Your task to perform on an android device: turn vacation reply on in the gmail app Image 0: 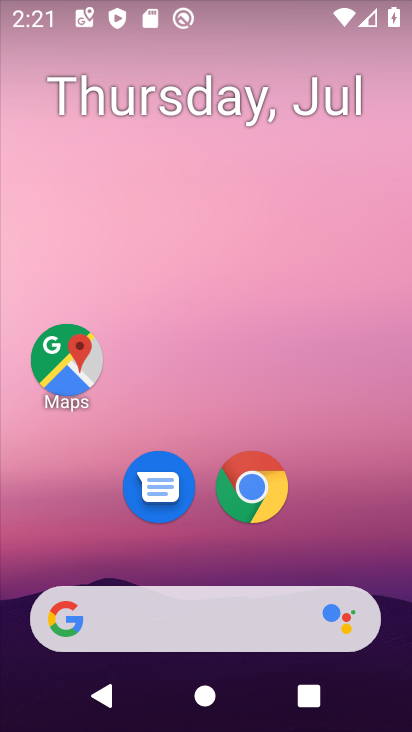
Step 0: drag from (380, 550) to (367, 177)
Your task to perform on an android device: turn vacation reply on in the gmail app Image 1: 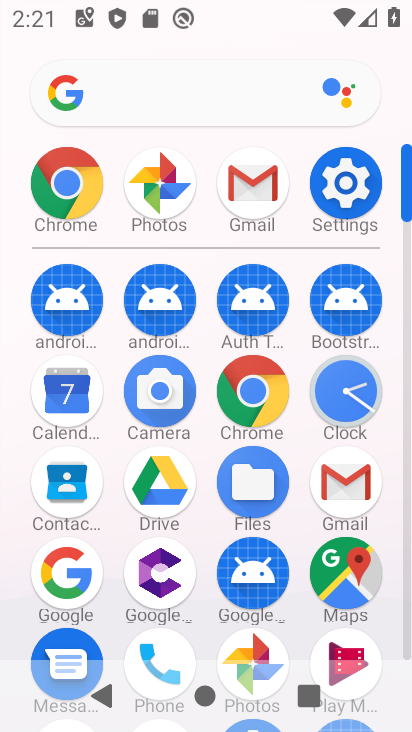
Step 1: click (353, 487)
Your task to perform on an android device: turn vacation reply on in the gmail app Image 2: 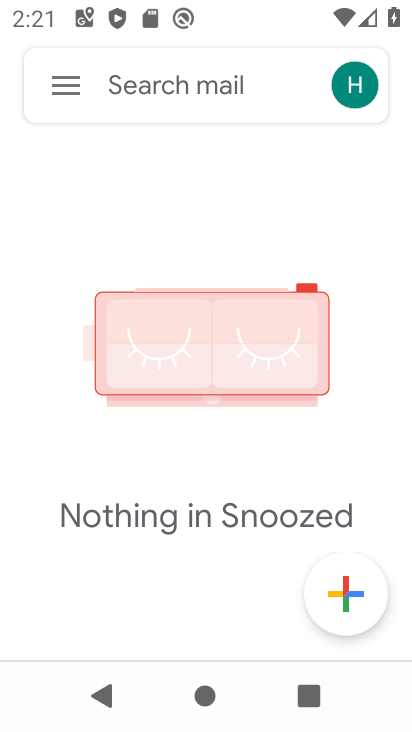
Step 2: click (71, 97)
Your task to perform on an android device: turn vacation reply on in the gmail app Image 3: 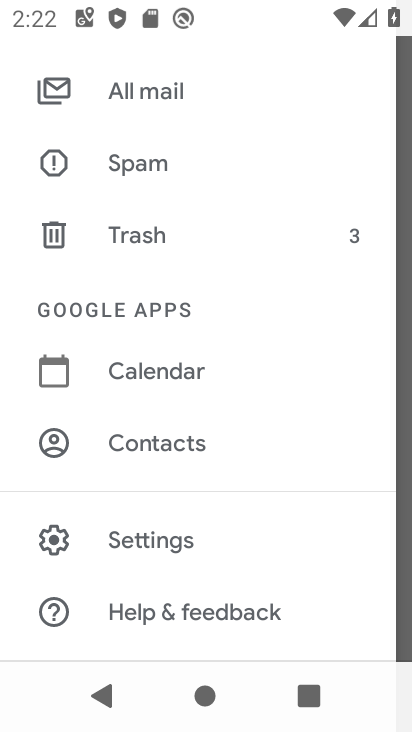
Step 3: click (180, 547)
Your task to perform on an android device: turn vacation reply on in the gmail app Image 4: 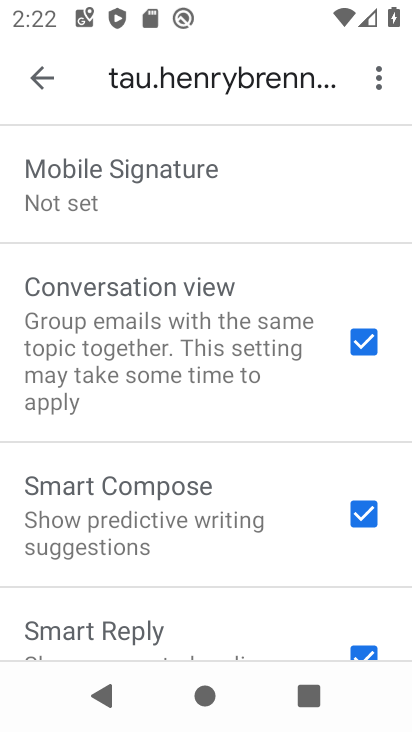
Step 4: drag from (301, 475) to (310, 404)
Your task to perform on an android device: turn vacation reply on in the gmail app Image 5: 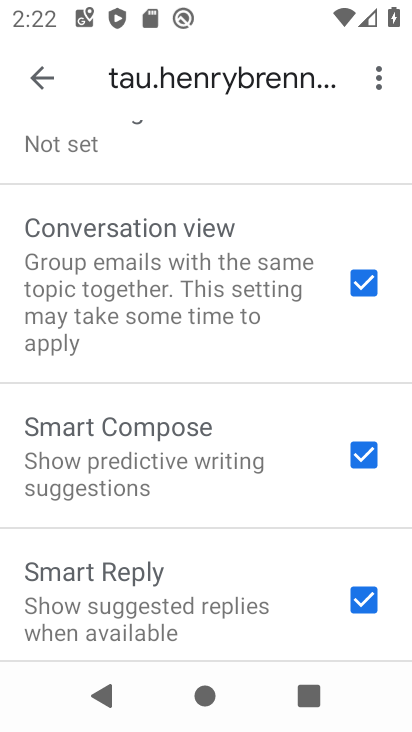
Step 5: drag from (283, 483) to (292, 394)
Your task to perform on an android device: turn vacation reply on in the gmail app Image 6: 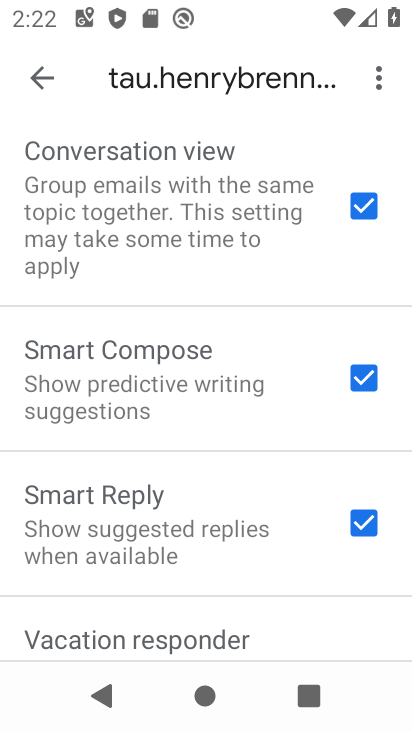
Step 6: drag from (286, 491) to (296, 380)
Your task to perform on an android device: turn vacation reply on in the gmail app Image 7: 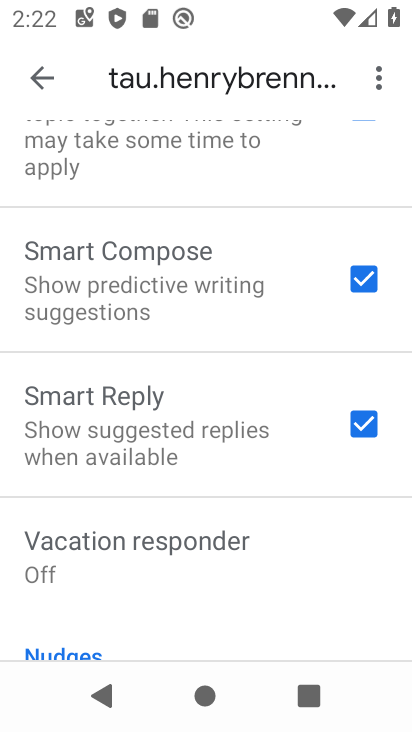
Step 7: drag from (303, 530) to (309, 404)
Your task to perform on an android device: turn vacation reply on in the gmail app Image 8: 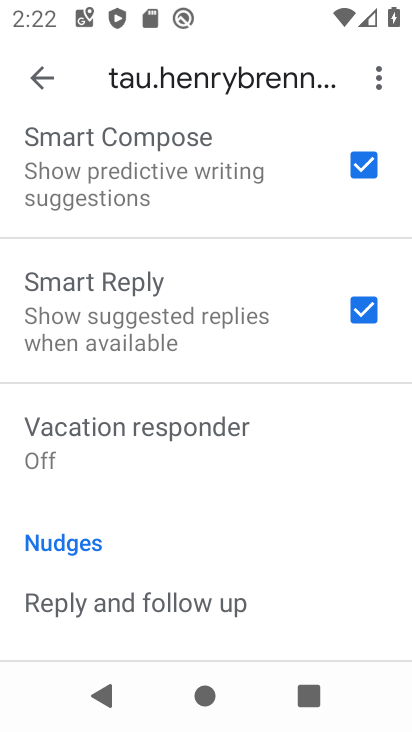
Step 8: drag from (298, 517) to (298, 413)
Your task to perform on an android device: turn vacation reply on in the gmail app Image 9: 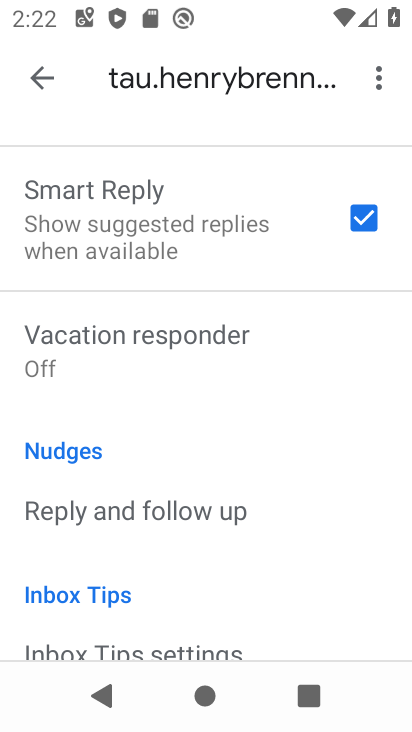
Step 9: drag from (327, 545) to (327, 463)
Your task to perform on an android device: turn vacation reply on in the gmail app Image 10: 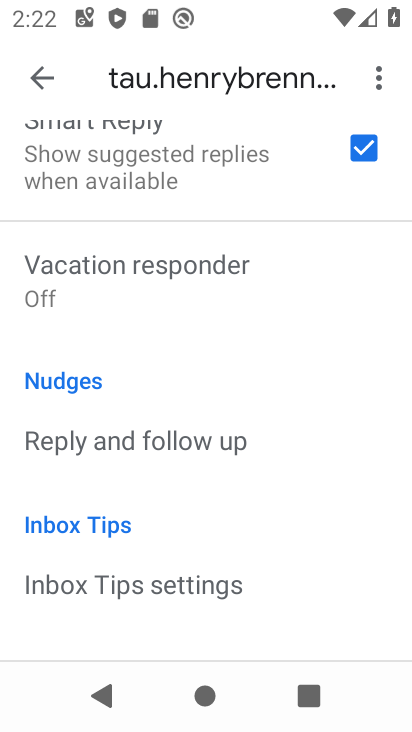
Step 10: click (240, 295)
Your task to perform on an android device: turn vacation reply on in the gmail app Image 11: 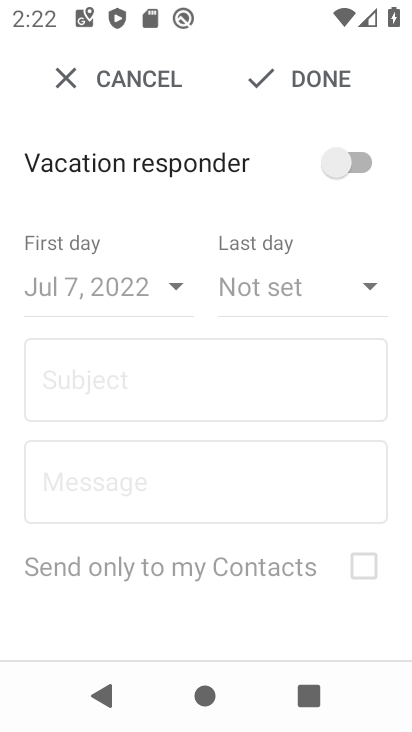
Step 11: click (327, 170)
Your task to perform on an android device: turn vacation reply on in the gmail app Image 12: 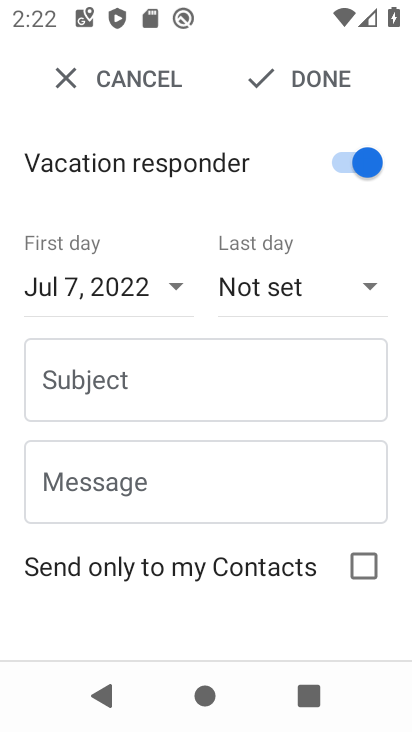
Step 12: task complete